Your task to perform on an android device: What's the news in Paraguay? Image 0: 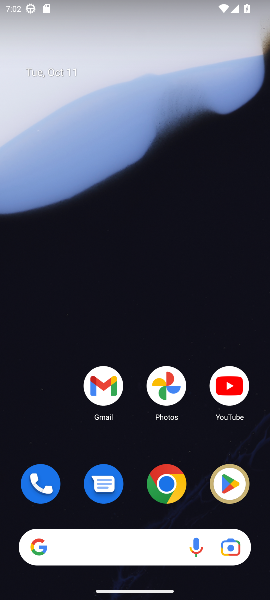
Step 0: click (162, 484)
Your task to perform on an android device: What's the news in Paraguay? Image 1: 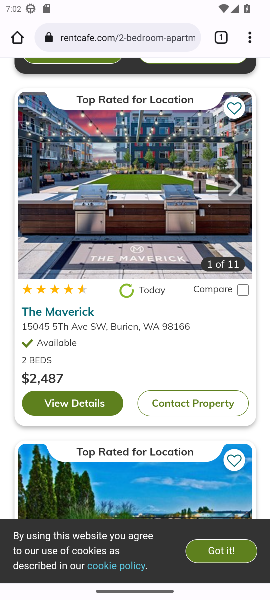
Step 1: click (159, 40)
Your task to perform on an android device: What's the news in Paraguay? Image 2: 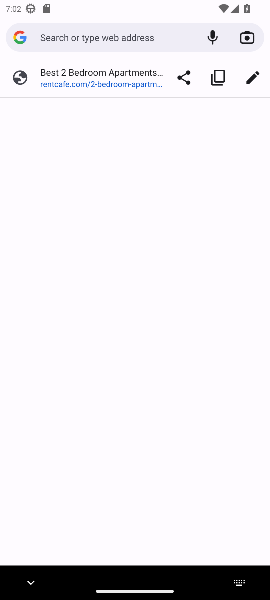
Step 2: type "What's the news in Paraguagy?"
Your task to perform on an android device: What's the news in Paraguay? Image 3: 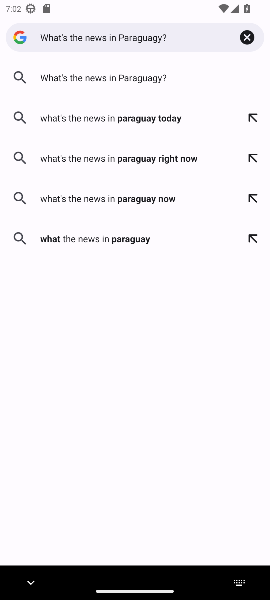
Step 3: click (135, 79)
Your task to perform on an android device: What's the news in Paraguay? Image 4: 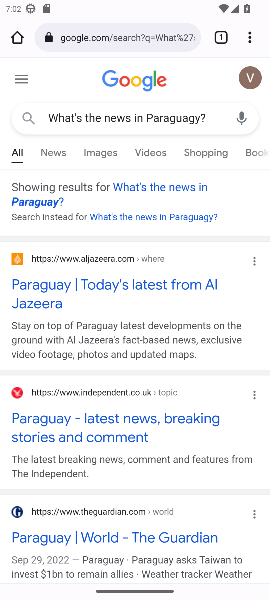
Step 4: click (102, 284)
Your task to perform on an android device: What's the news in Paraguay? Image 5: 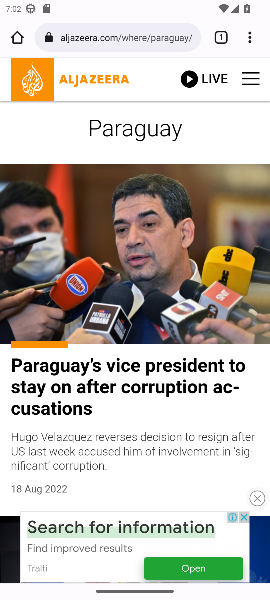
Step 5: task complete